Your task to perform on an android device: check storage Image 0: 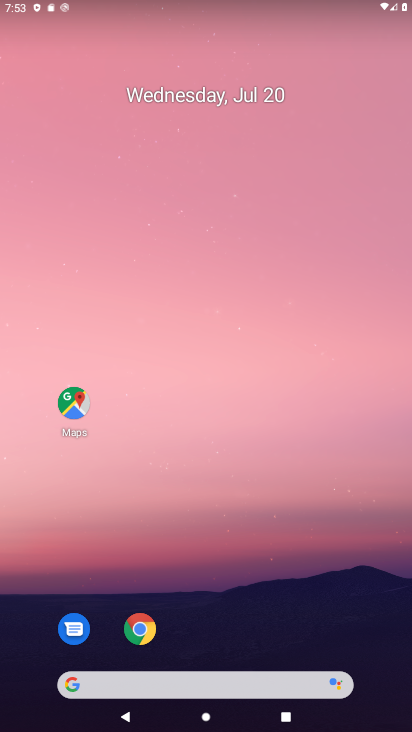
Step 0: drag from (256, 623) to (256, 245)
Your task to perform on an android device: check storage Image 1: 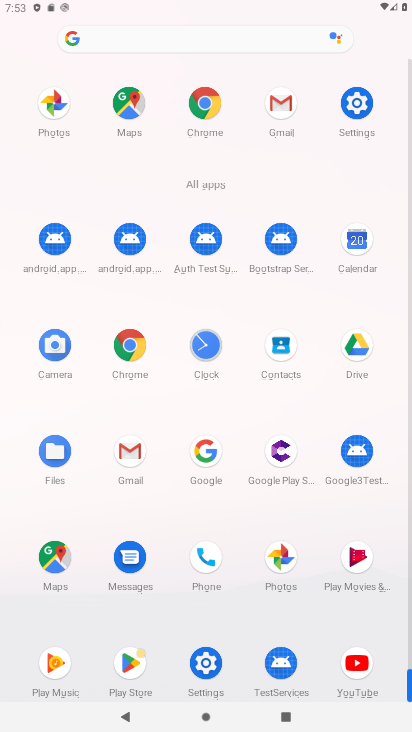
Step 1: click (346, 100)
Your task to perform on an android device: check storage Image 2: 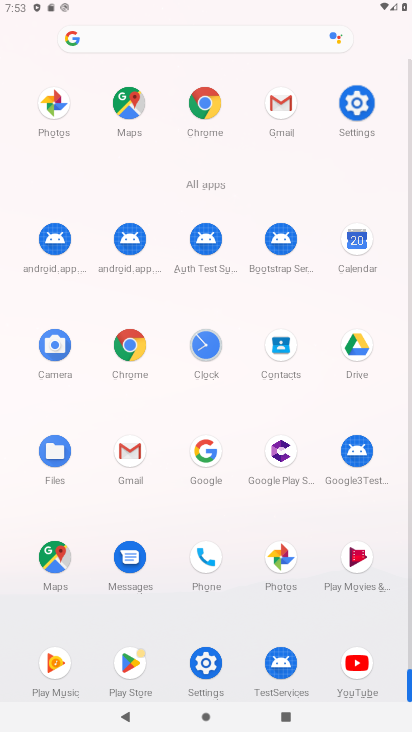
Step 2: click (347, 100)
Your task to perform on an android device: check storage Image 3: 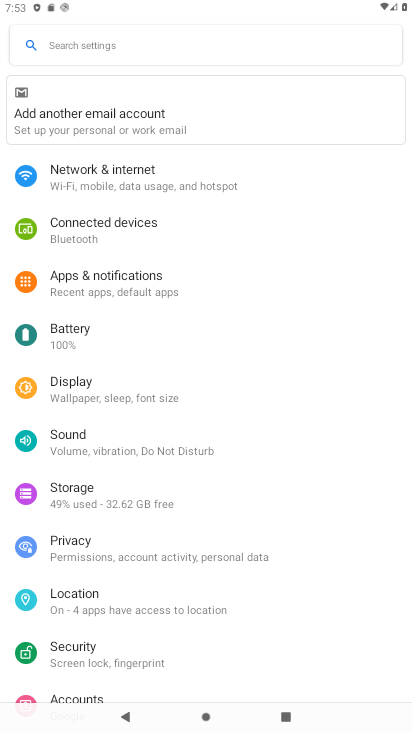
Step 3: click (91, 498)
Your task to perform on an android device: check storage Image 4: 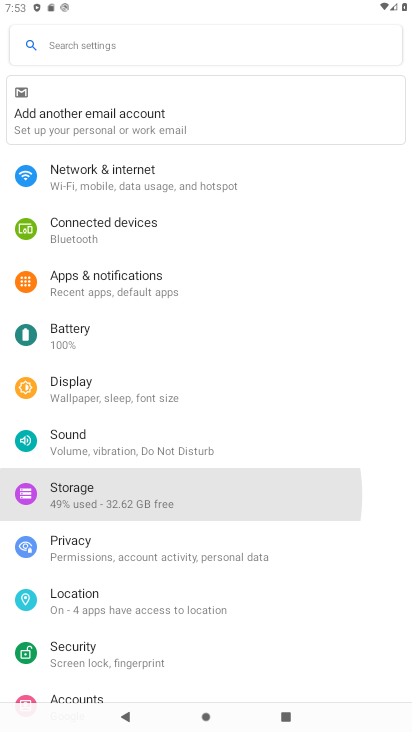
Step 4: click (91, 498)
Your task to perform on an android device: check storage Image 5: 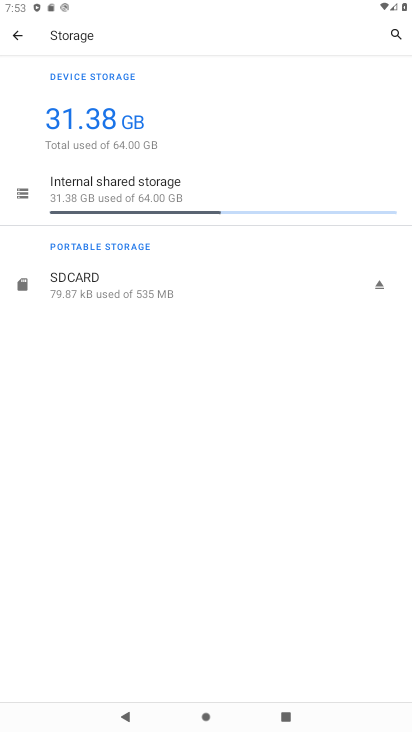
Step 5: task complete